Your task to perform on an android device: Clear the cart on walmart.com. Add "jbl charge 4" to the cart on walmart.com Image 0: 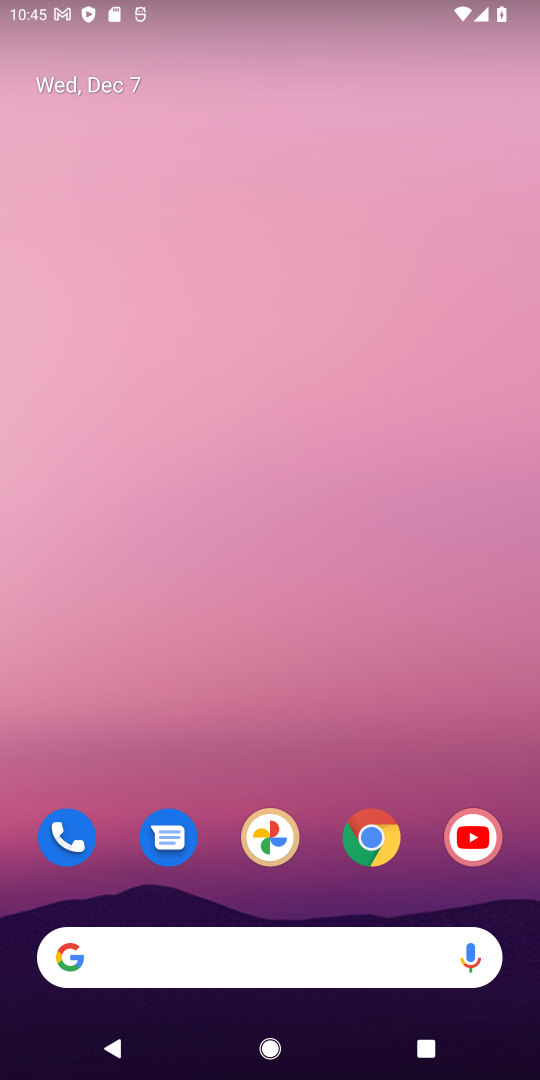
Step 0: click (378, 832)
Your task to perform on an android device: Clear the cart on walmart.com. Add "jbl charge 4" to the cart on walmart.com Image 1: 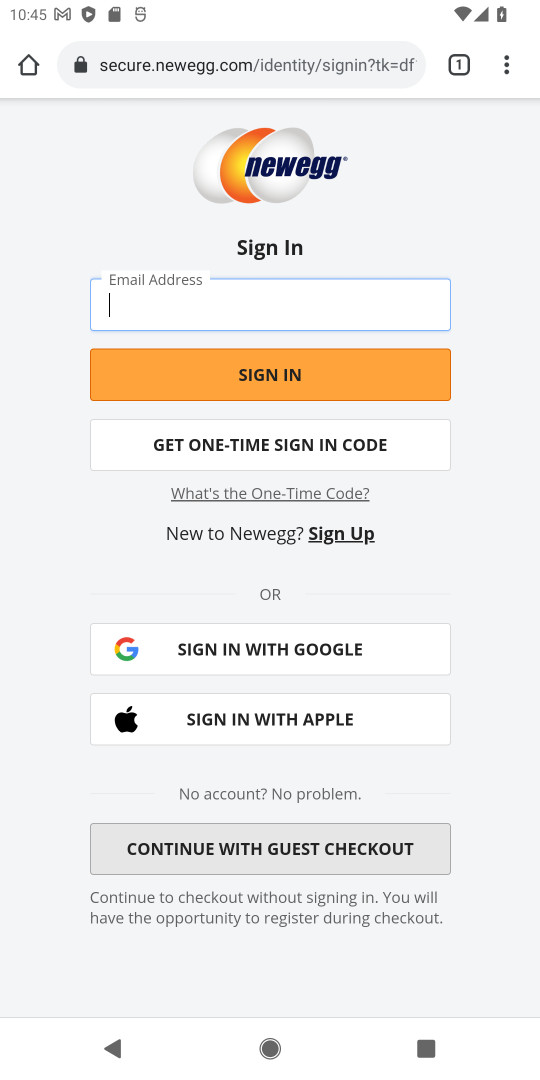
Step 1: click (305, 63)
Your task to perform on an android device: Clear the cart on walmart.com. Add "jbl charge 4" to the cart on walmart.com Image 2: 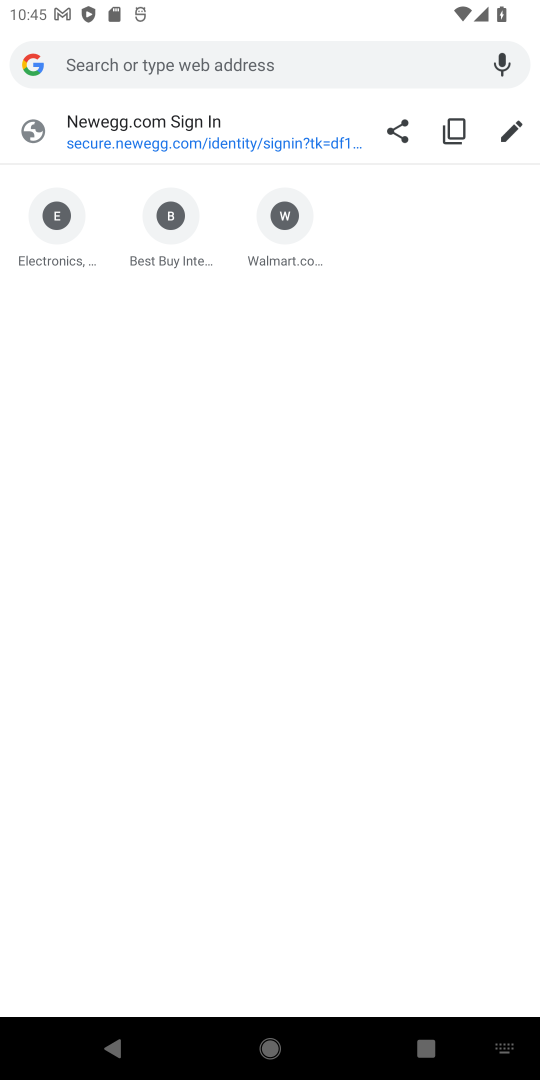
Step 2: type "walmart.com"
Your task to perform on an android device: Clear the cart on walmart.com. Add "jbl charge 4" to the cart on walmart.com Image 3: 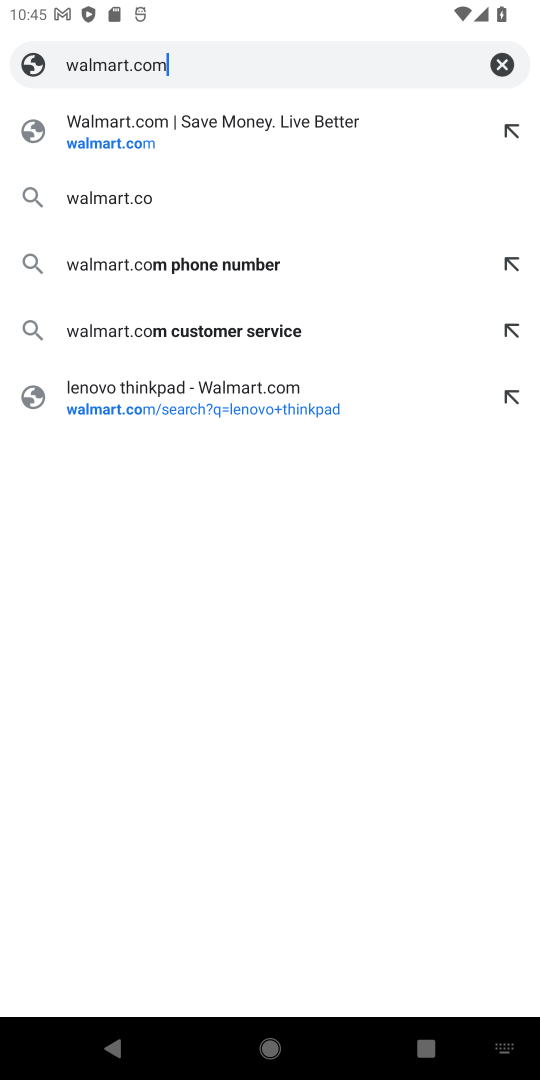
Step 3: press enter
Your task to perform on an android device: Clear the cart on walmart.com. Add "jbl charge 4" to the cart on walmart.com Image 4: 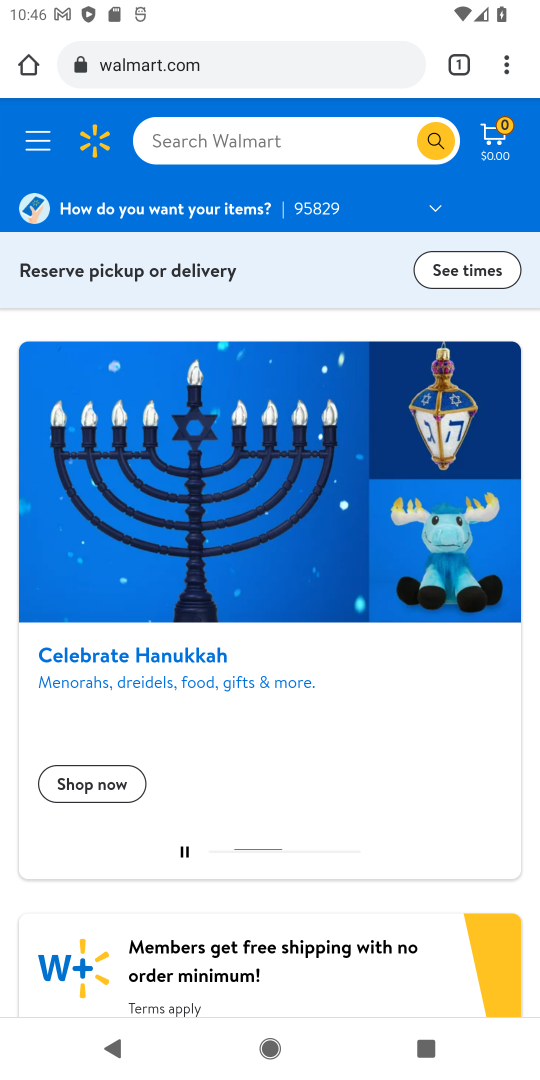
Step 4: click (496, 145)
Your task to perform on an android device: Clear the cart on walmart.com. Add "jbl charge 4" to the cart on walmart.com Image 5: 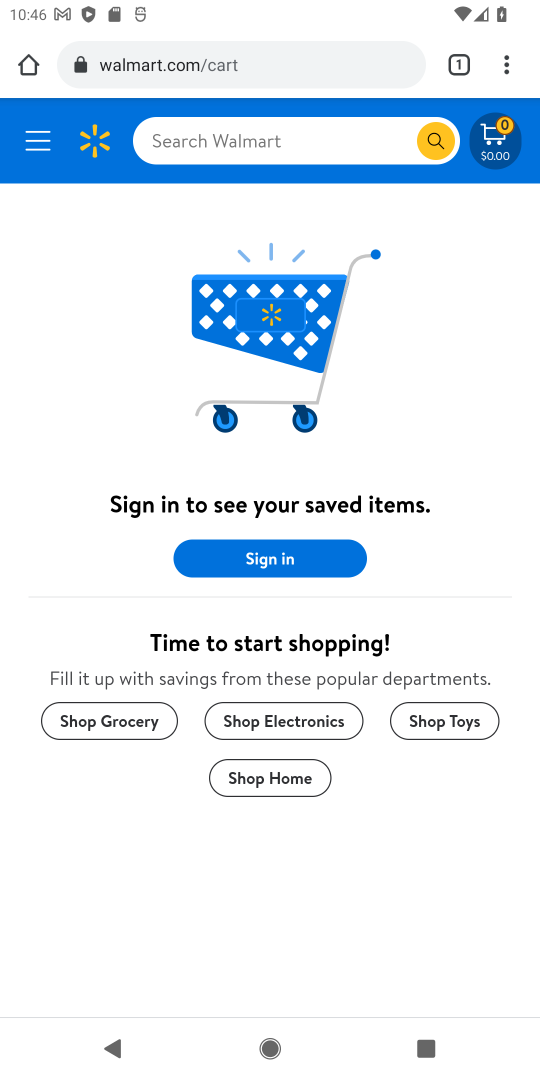
Step 5: click (319, 139)
Your task to perform on an android device: Clear the cart on walmart.com. Add "jbl charge 4" to the cart on walmart.com Image 6: 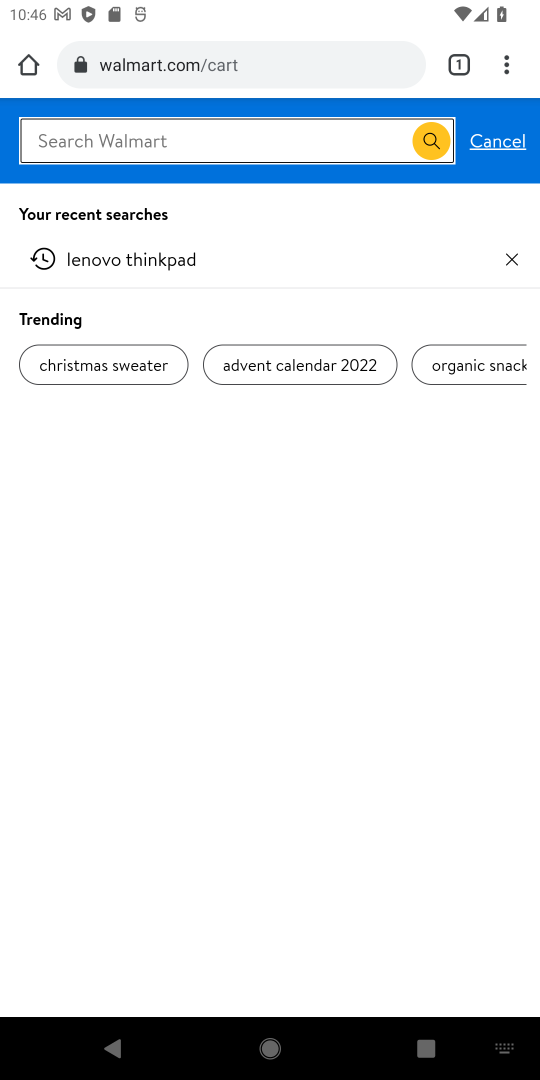
Step 6: type "jbl charge 4"
Your task to perform on an android device: Clear the cart on walmart.com. Add "jbl charge 4" to the cart on walmart.com Image 7: 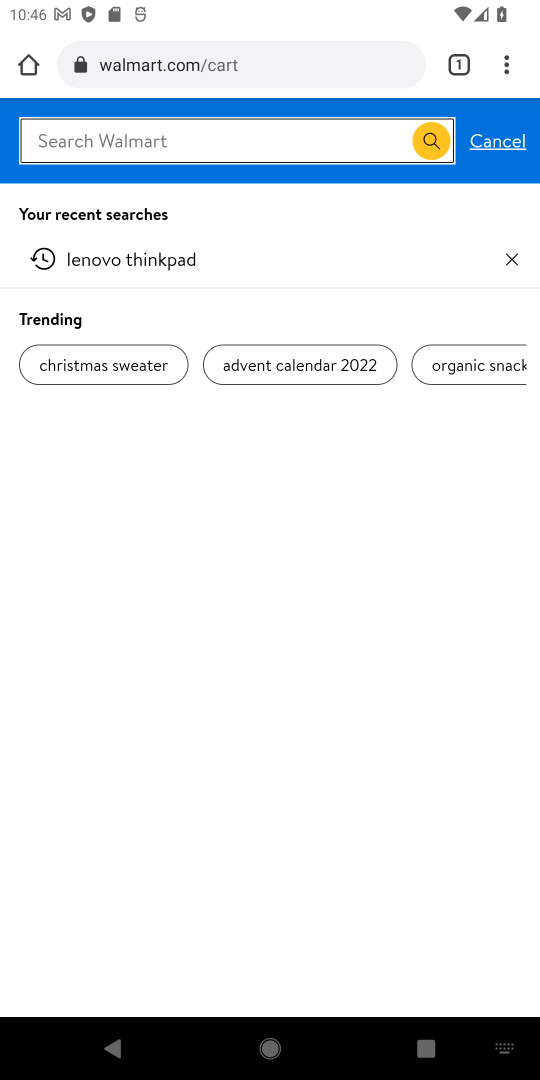
Step 7: press enter
Your task to perform on an android device: Clear the cart on walmart.com. Add "jbl charge 4" to the cart on walmart.com Image 8: 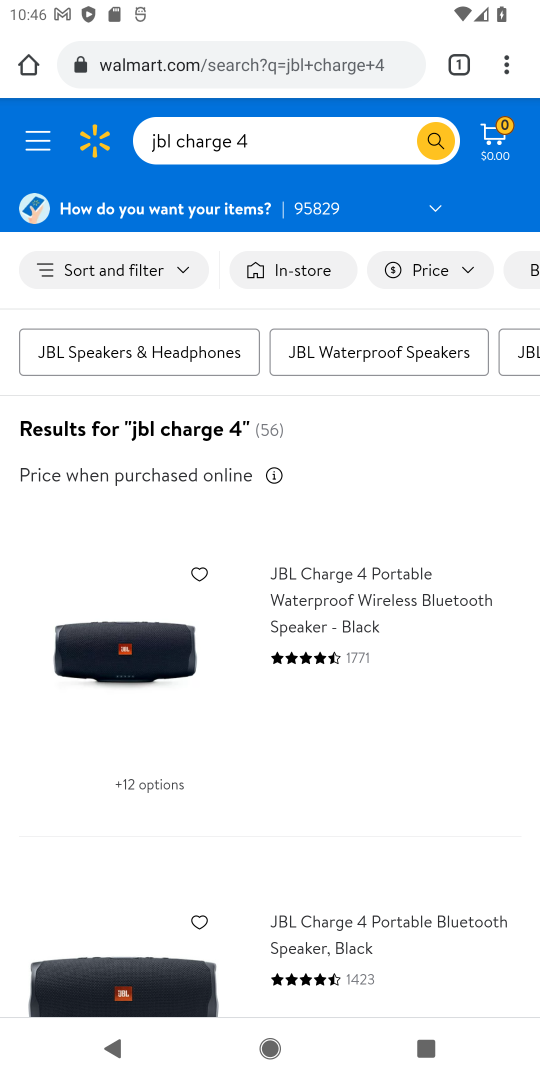
Step 8: click (127, 650)
Your task to perform on an android device: Clear the cart on walmart.com. Add "jbl charge 4" to the cart on walmart.com Image 9: 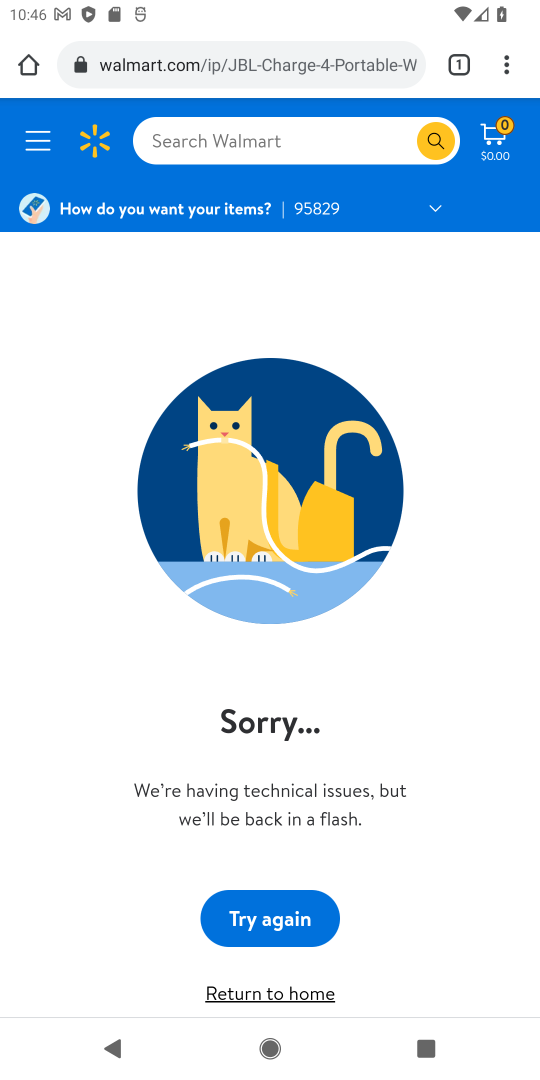
Step 9: press back button
Your task to perform on an android device: Clear the cart on walmart.com. Add "jbl charge 4" to the cart on walmart.com Image 10: 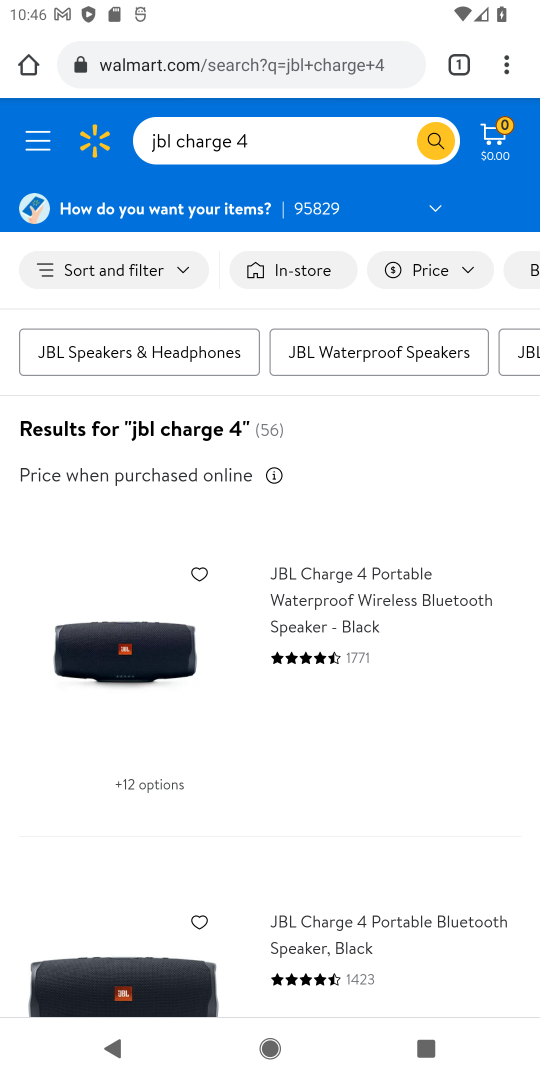
Step 10: click (153, 969)
Your task to perform on an android device: Clear the cart on walmart.com. Add "jbl charge 4" to the cart on walmart.com Image 11: 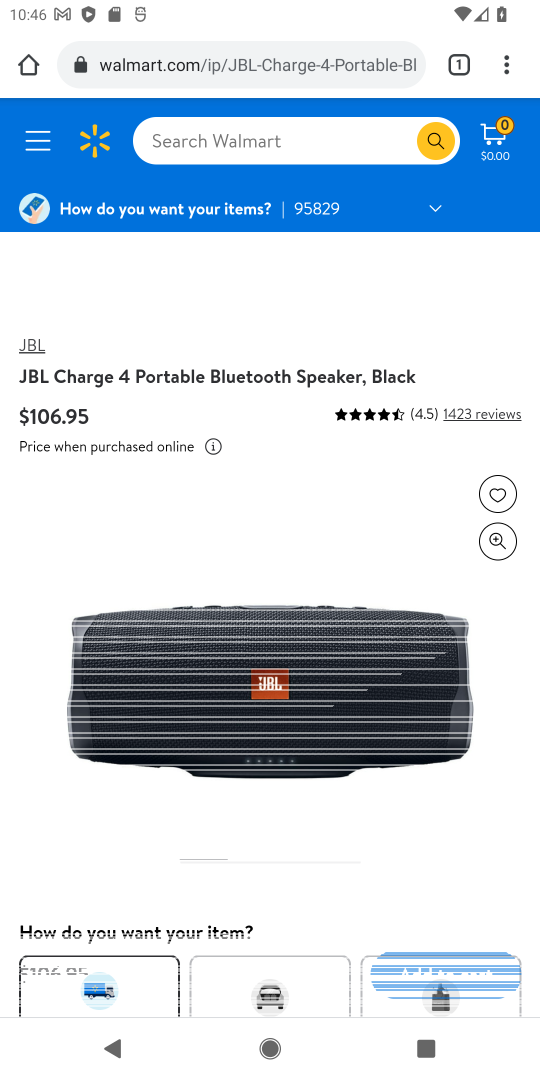
Step 11: click (489, 978)
Your task to perform on an android device: Clear the cart on walmart.com. Add "jbl charge 4" to the cart on walmart.com Image 12: 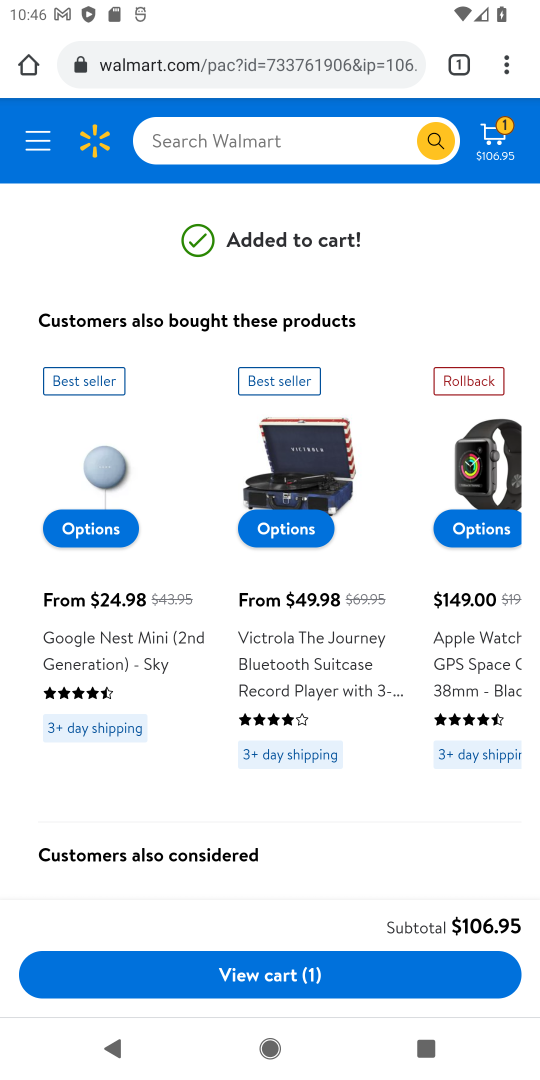
Step 12: click (237, 981)
Your task to perform on an android device: Clear the cart on walmart.com. Add "jbl charge 4" to the cart on walmart.com Image 13: 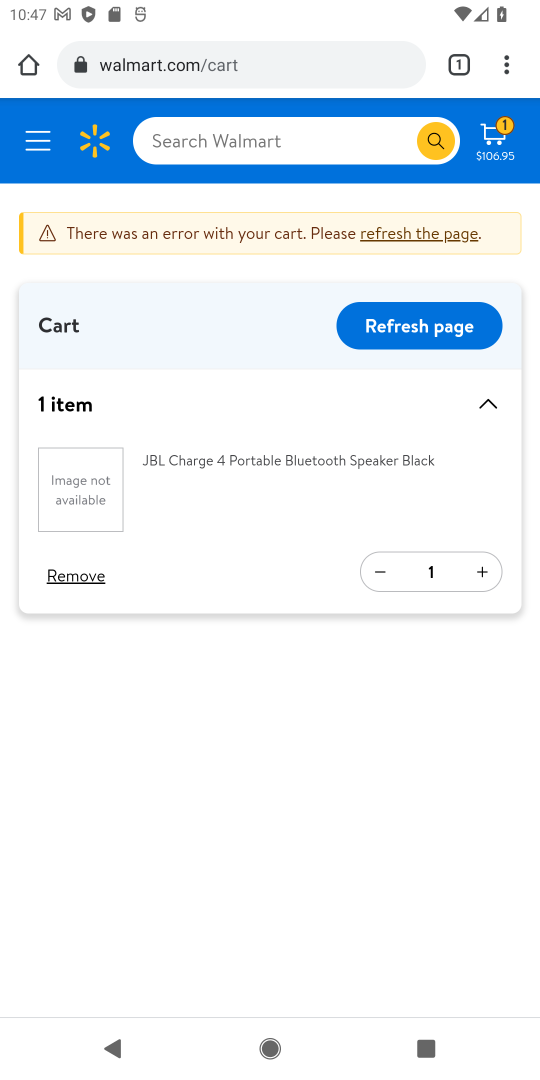
Step 13: task complete